Your task to perform on an android device: toggle priority inbox in the gmail app Image 0: 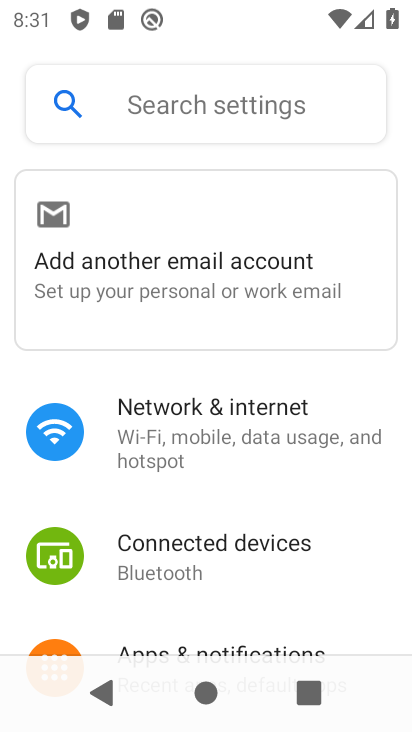
Step 0: drag from (270, 592) to (319, 251)
Your task to perform on an android device: toggle priority inbox in the gmail app Image 1: 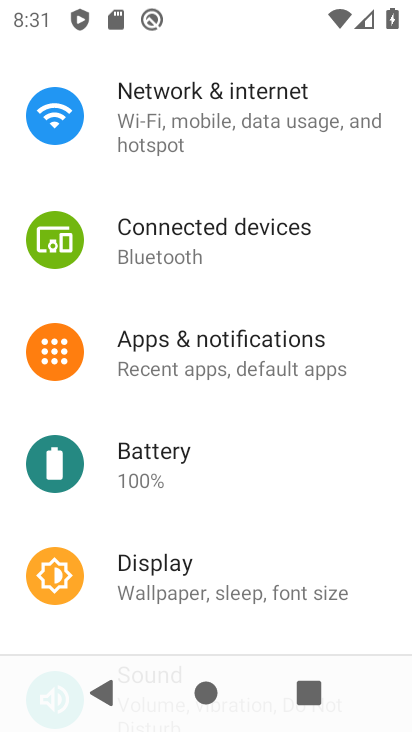
Step 1: press home button
Your task to perform on an android device: toggle priority inbox in the gmail app Image 2: 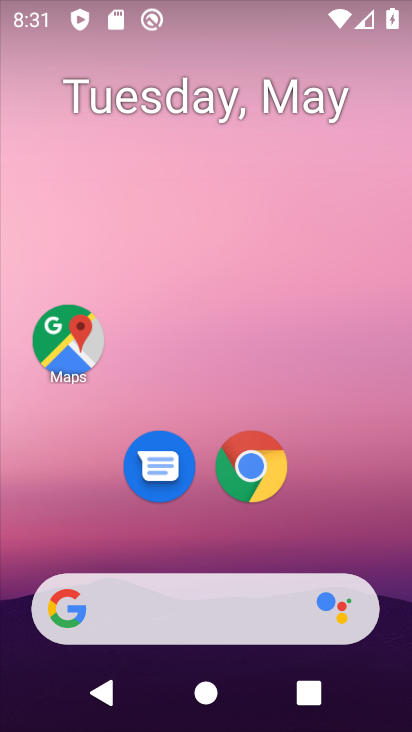
Step 2: drag from (194, 530) to (216, 93)
Your task to perform on an android device: toggle priority inbox in the gmail app Image 3: 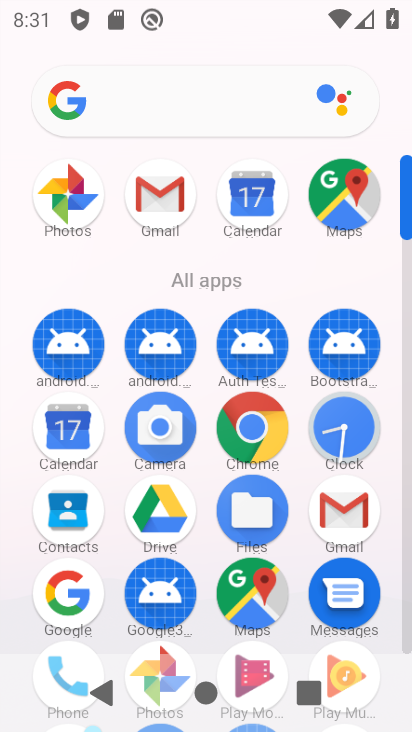
Step 3: click (162, 190)
Your task to perform on an android device: toggle priority inbox in the gmail app Image 4: 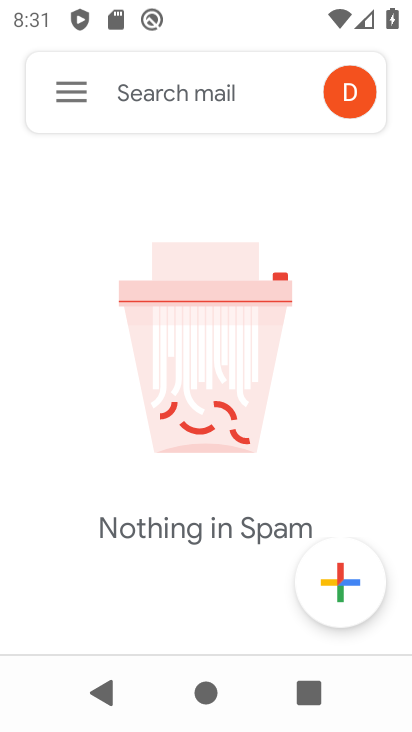
Step 4: click (65, 88)
Your task to perform on an android device: toggle priority inbox in the gmail app Image 5: 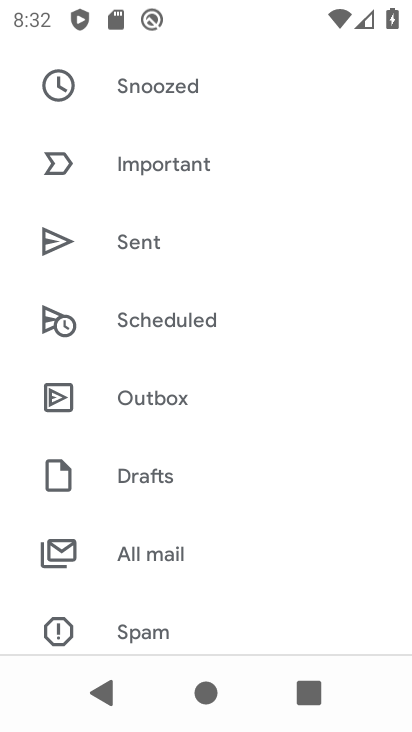
Step 5: drag from (175, 612) to (200, 52)
Your task to perform on an android device: toggle priority inbox in the gmail app Image 6: 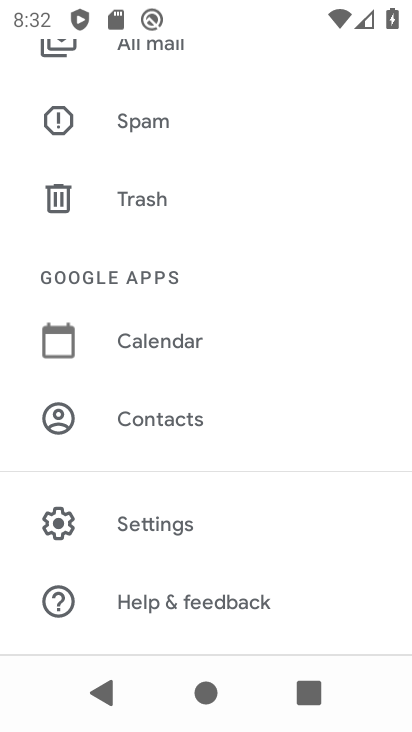
Step 6: click (192, 523)
Your task to perform on an android device: toggle priority inbox in the gmail app Image 7: 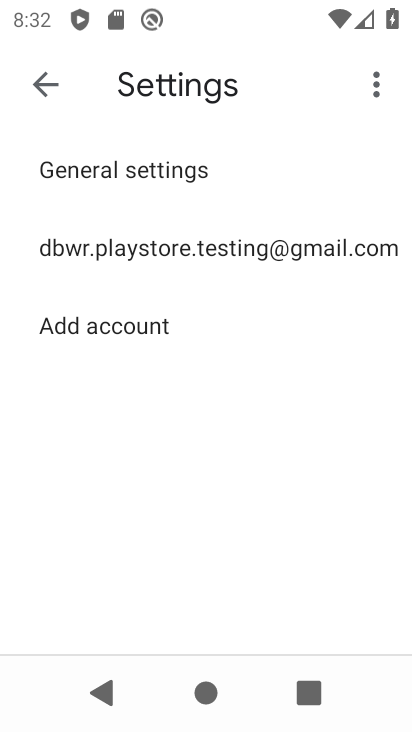
Step 7: click (246, 249)
Your task to perform on an android device: toggle priority inbox in the gmail app Image 8: 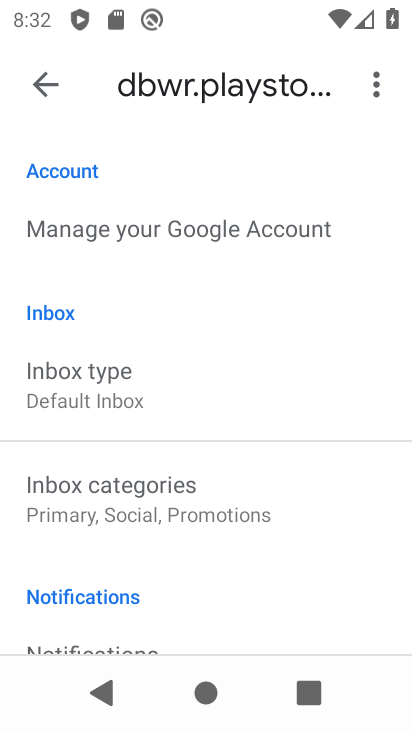
Step 8: click (159, 383)
Your task to perform on an android device: toggle priority inbox in the gmail app Image 9: 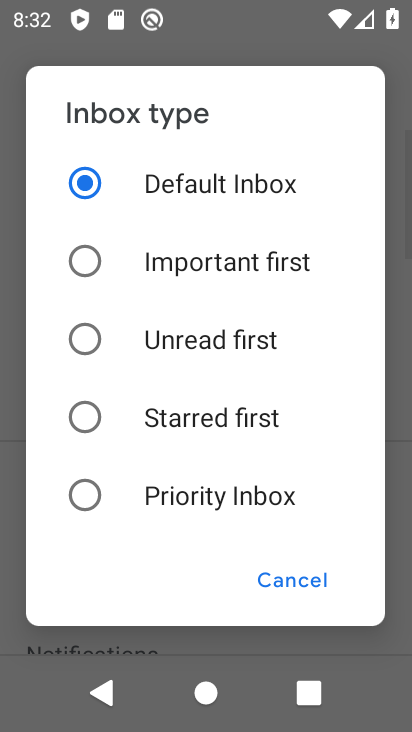
Step 9: click (84, 488)
Your task to perform on an android device: toggle priority inbox in the gmail app Image 10: 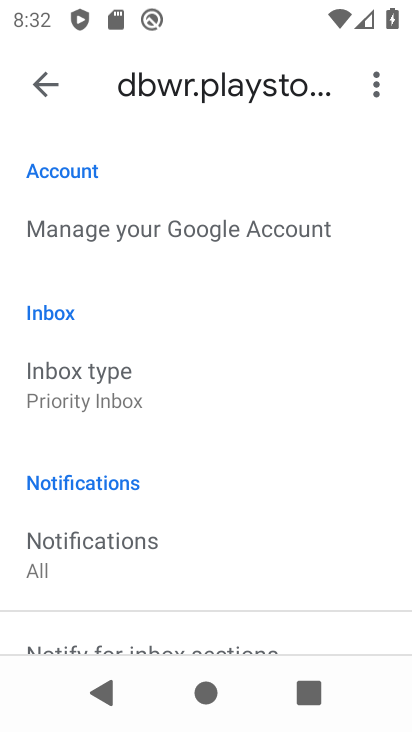
Step 10: task complete